Your task to perform on an android device: install app "Reddit" Image 0: 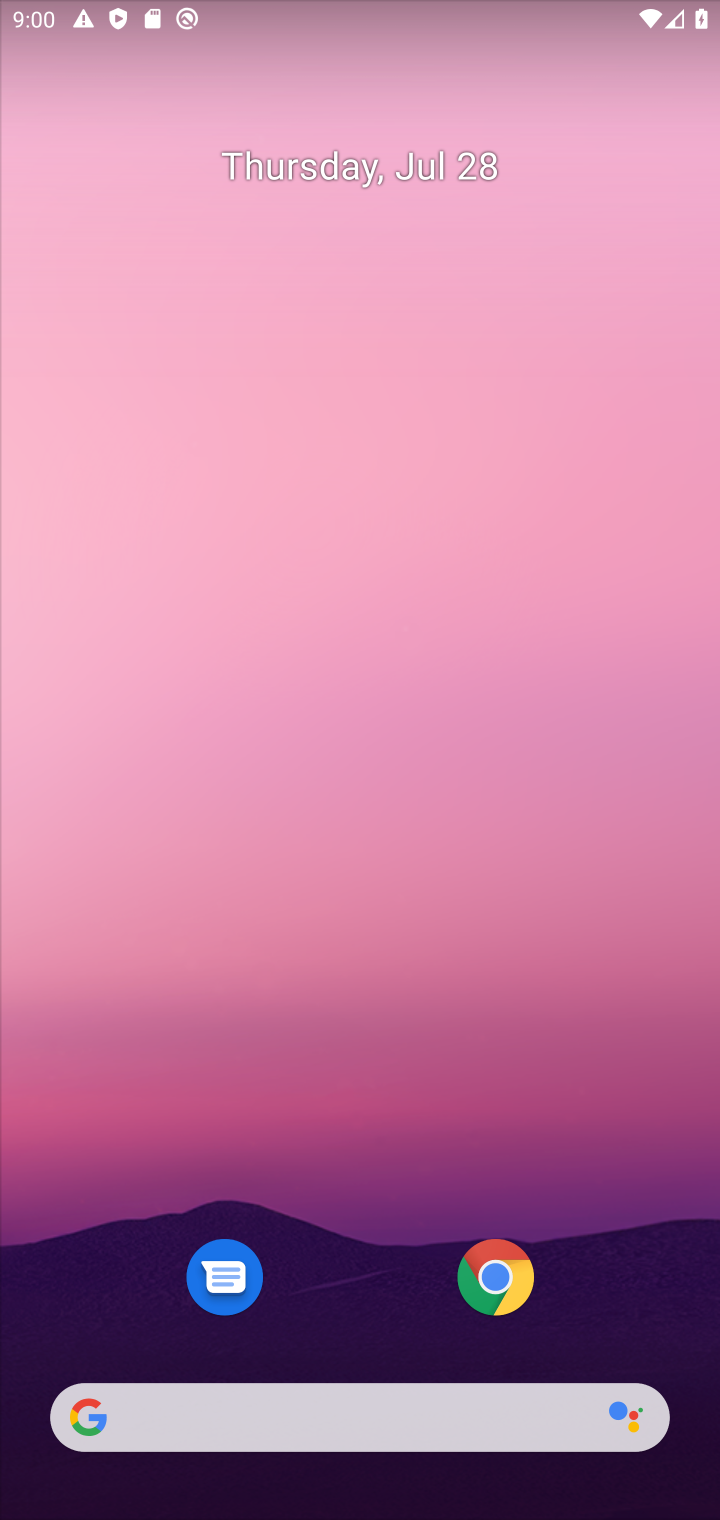
Step 0: drag from (376, 1475) to (386, 419)
Your task to perform on an android device: install app "Reddit" Image 1: 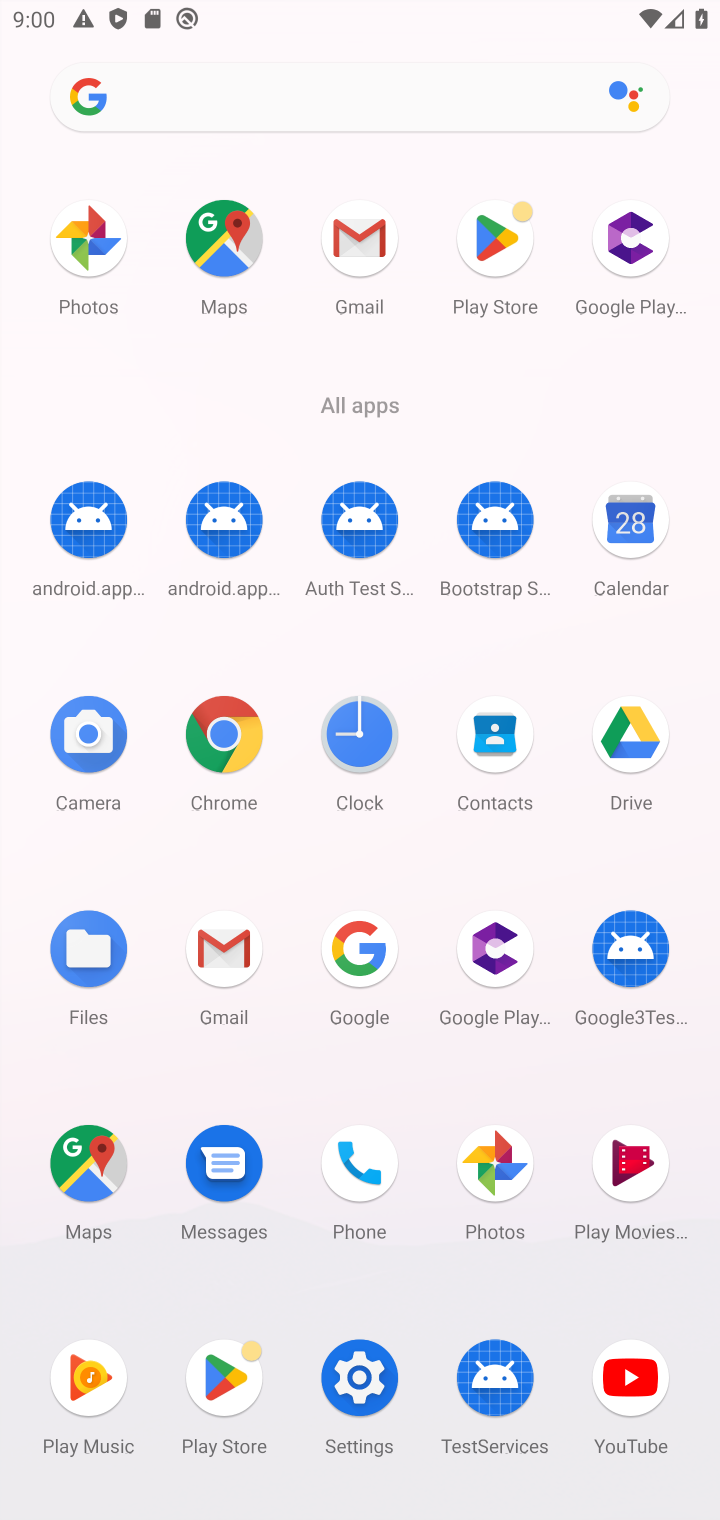
Step 1: click (229, 1368)
Your task to perform on an android device: install app "Reddit" Image 2: 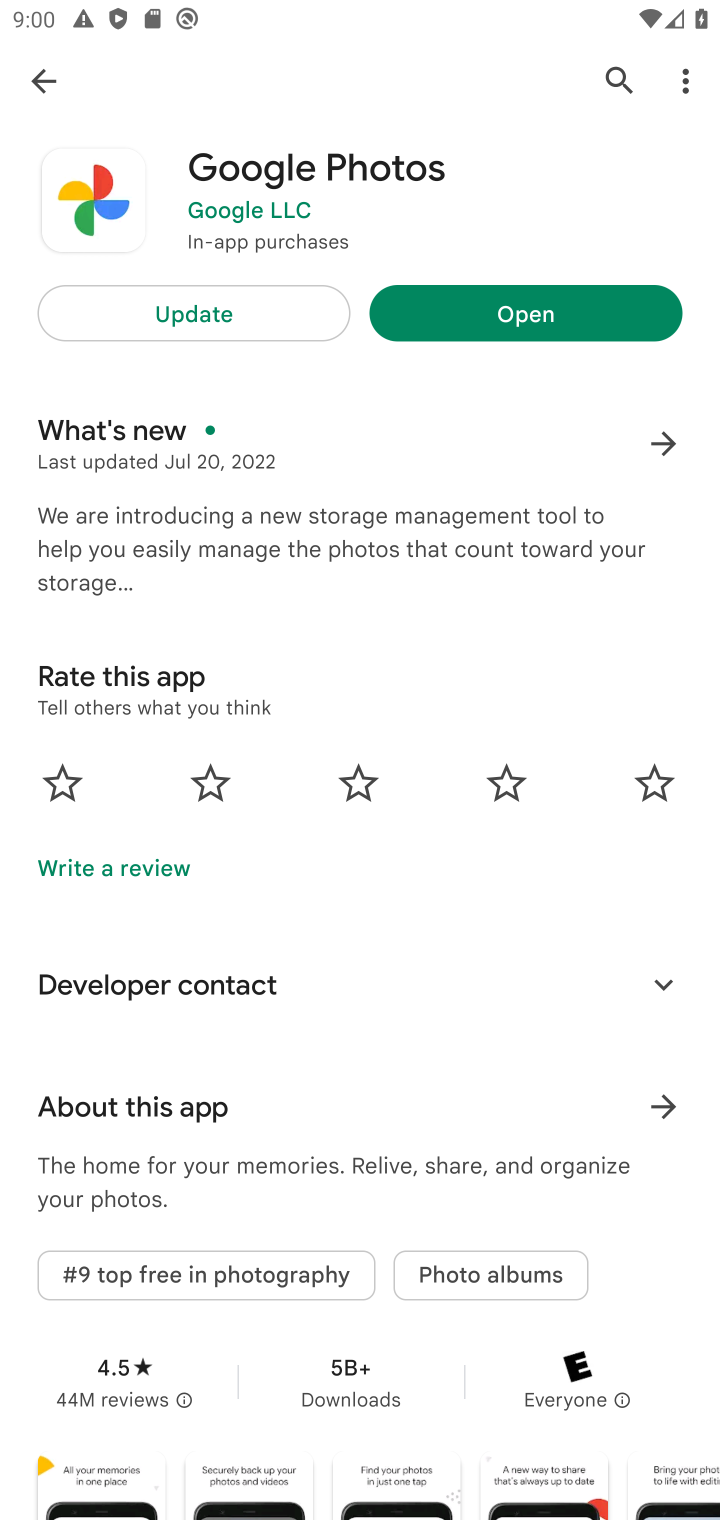
Step 2: click (610, 74)
Your task to perform on an android device: install app "Reddit" Image 3: 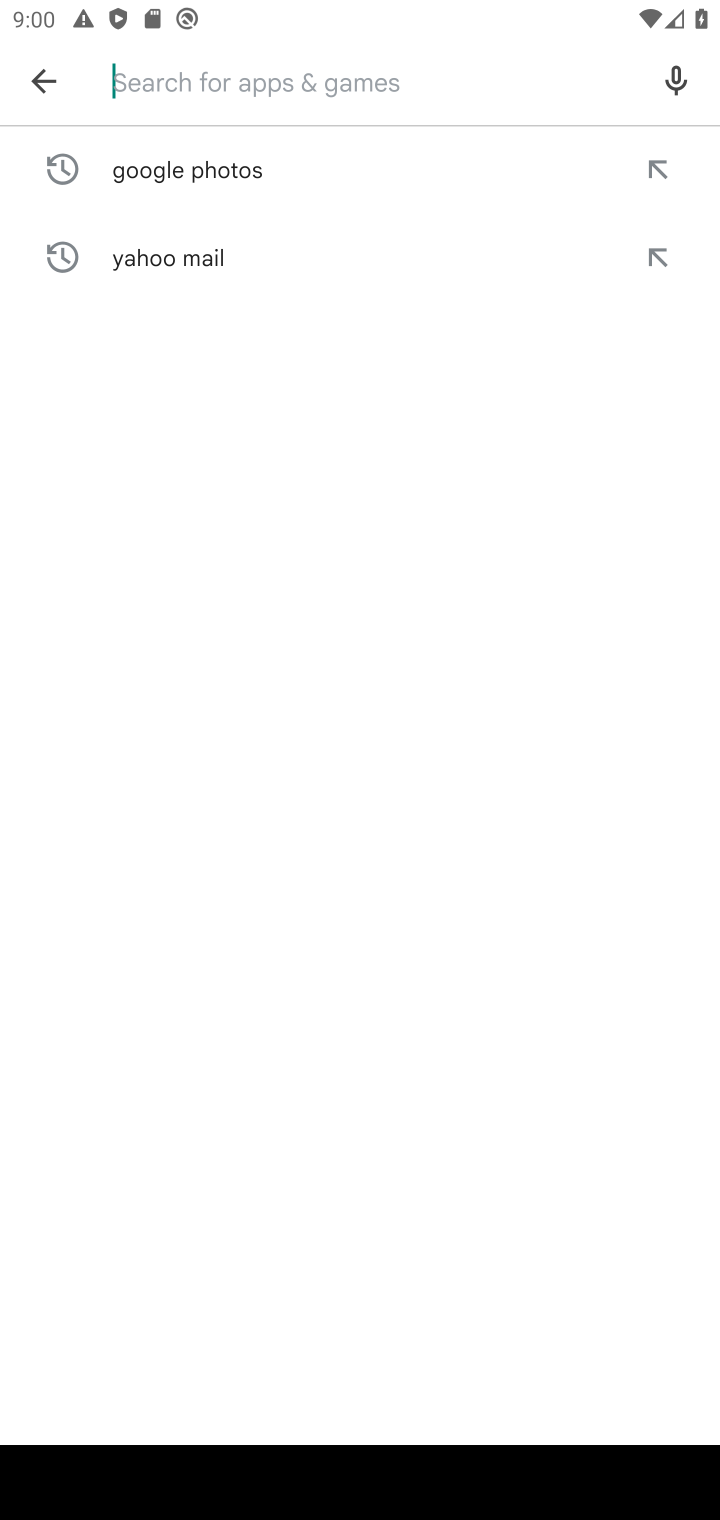
Step 3: type "Reddit"
Your task to perform on an android device: install app "Reddit" Image 4: 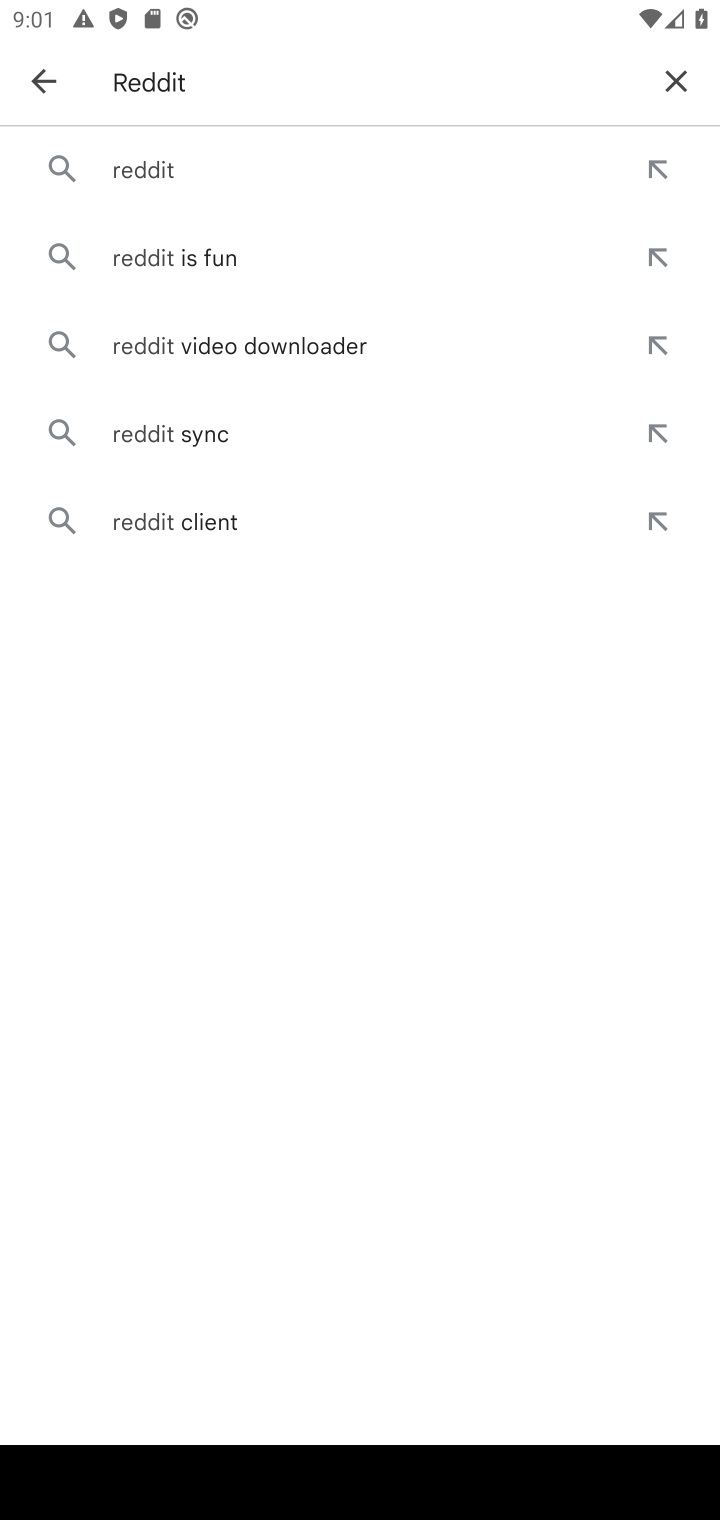
Step 4: click (142, 169)
Your task to perform on an android device: install app "Reddit" Image 5: 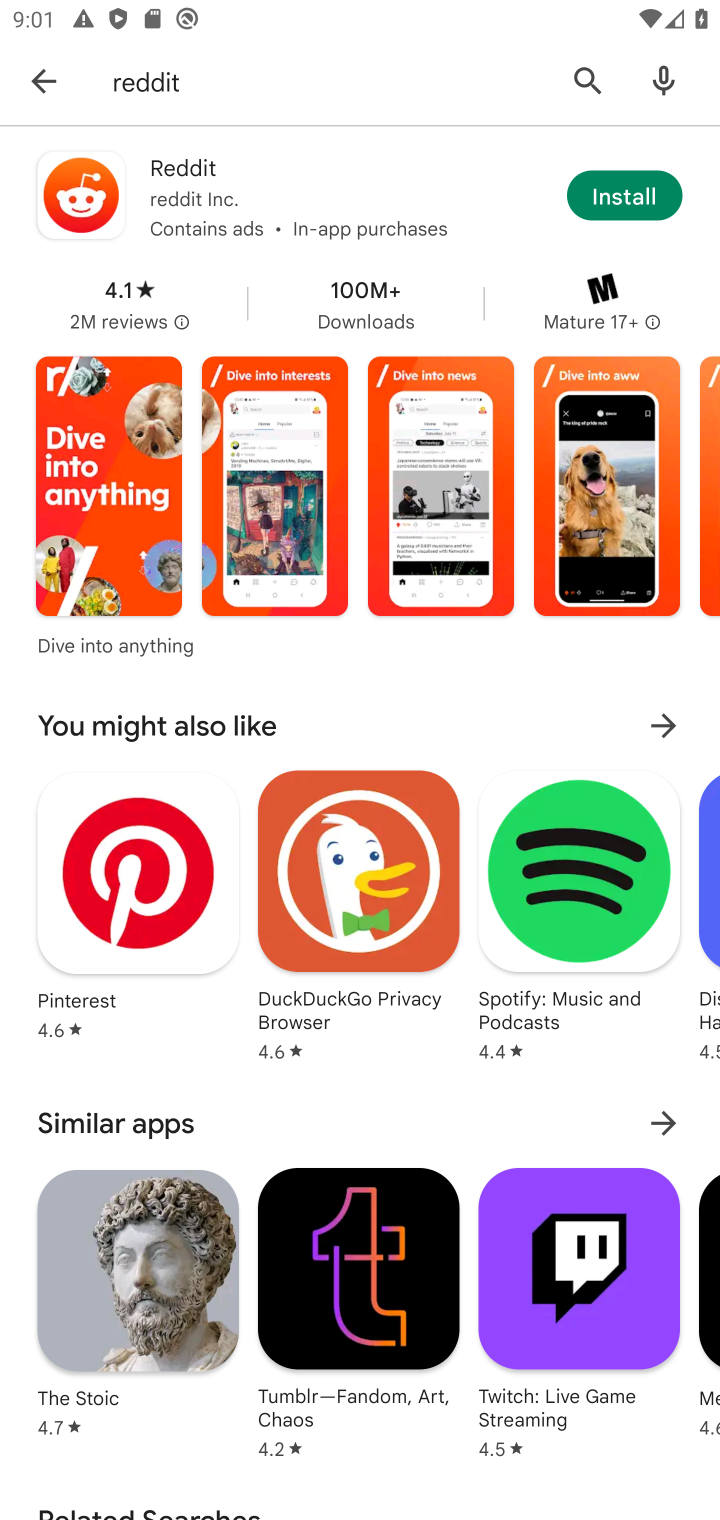
Step 5: click (633, 204)
Your task to perform on an android device: install app "Reddit" Image 6: 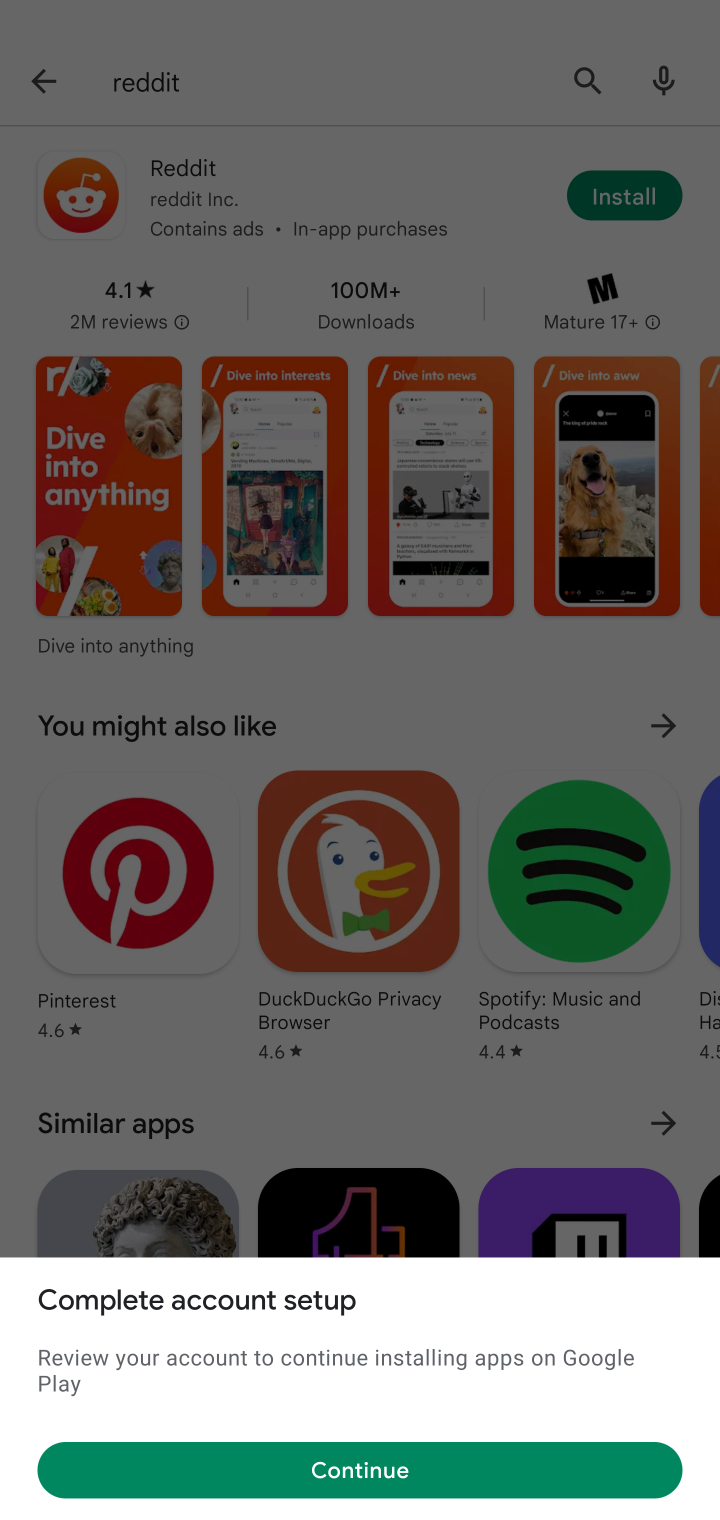
Step 6: click (380, 1459)
Your task to perform on an android device: install app "Reddit" Image 7: 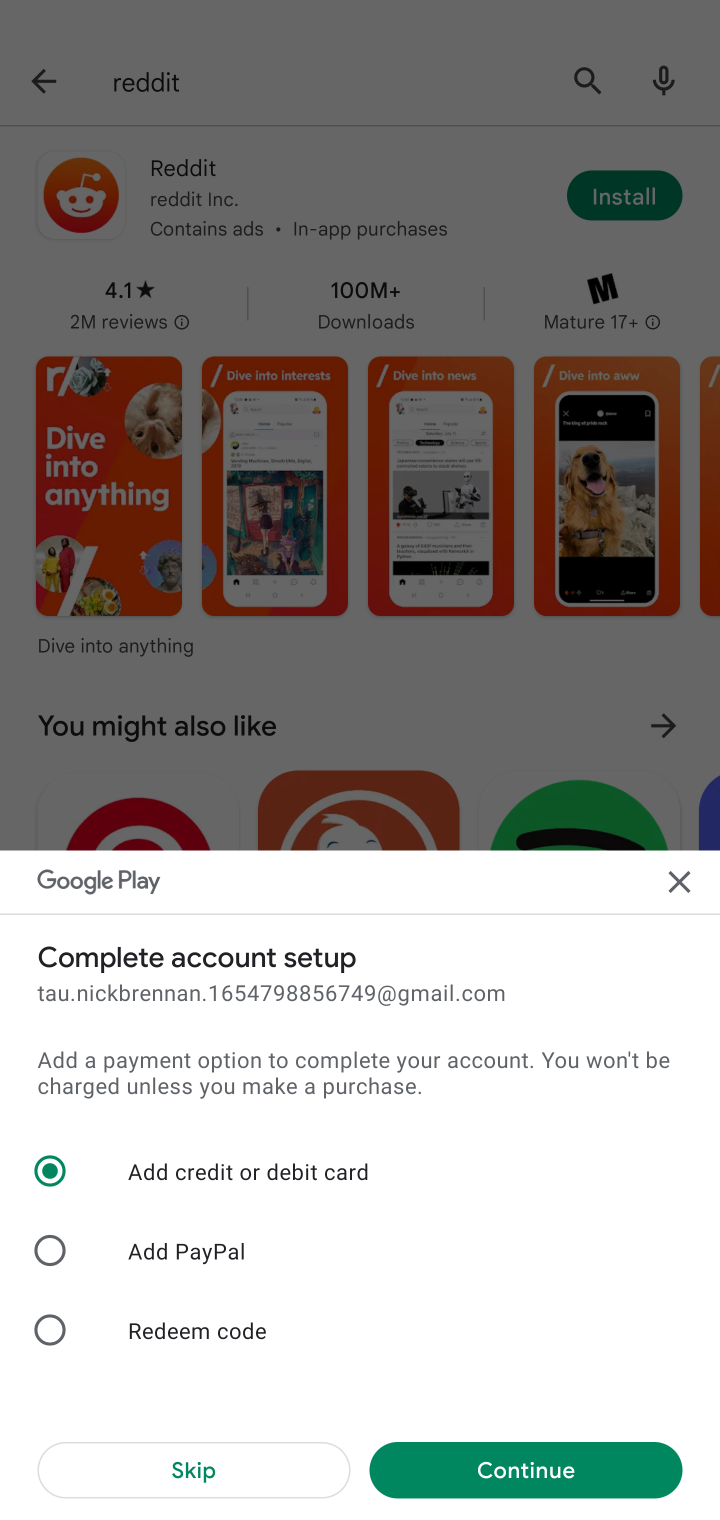
Step 7: click (184, 1471)
Your task to perform on an android device: install app "Reddit" Image 8: 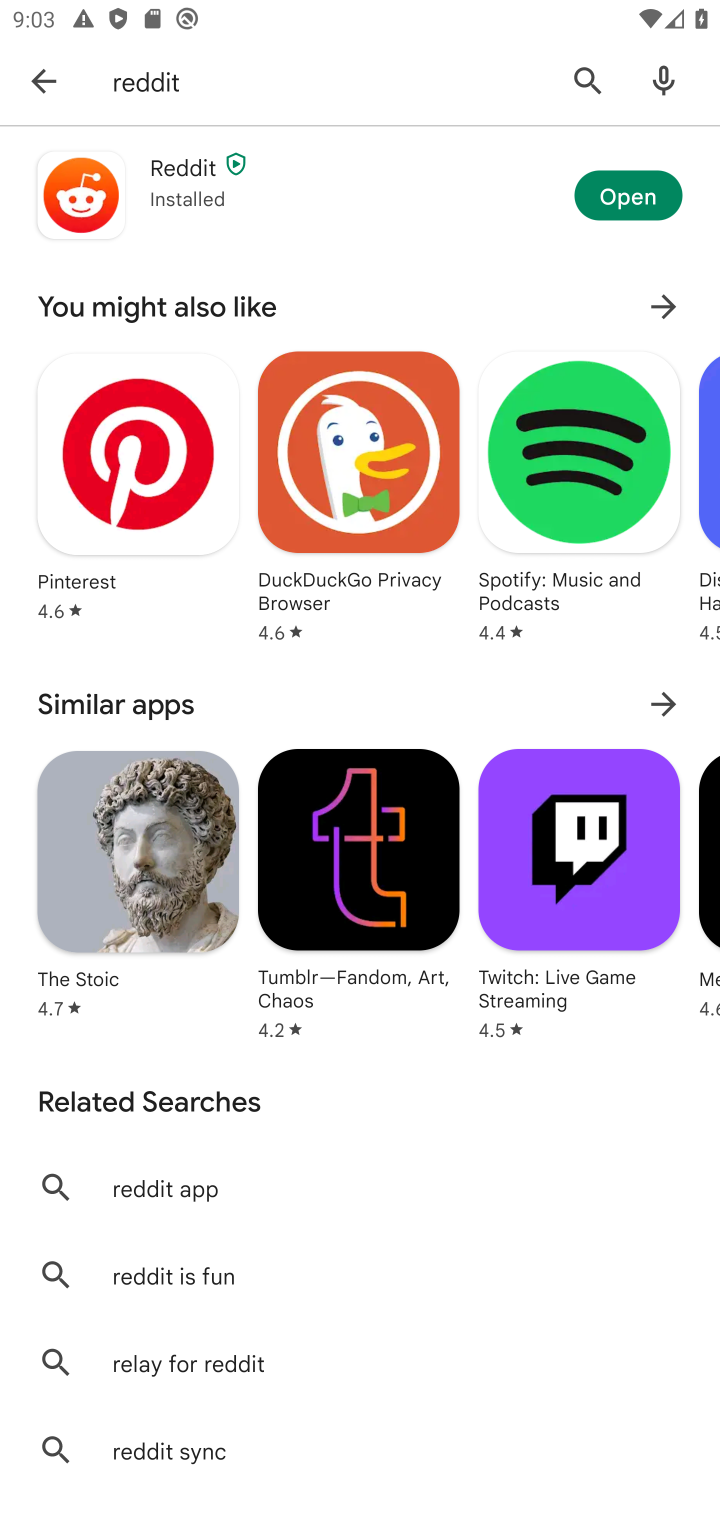
Step 8: task complete